Your task to perform on an android device: Add "usb-a" to the cart on ebay Image 0: 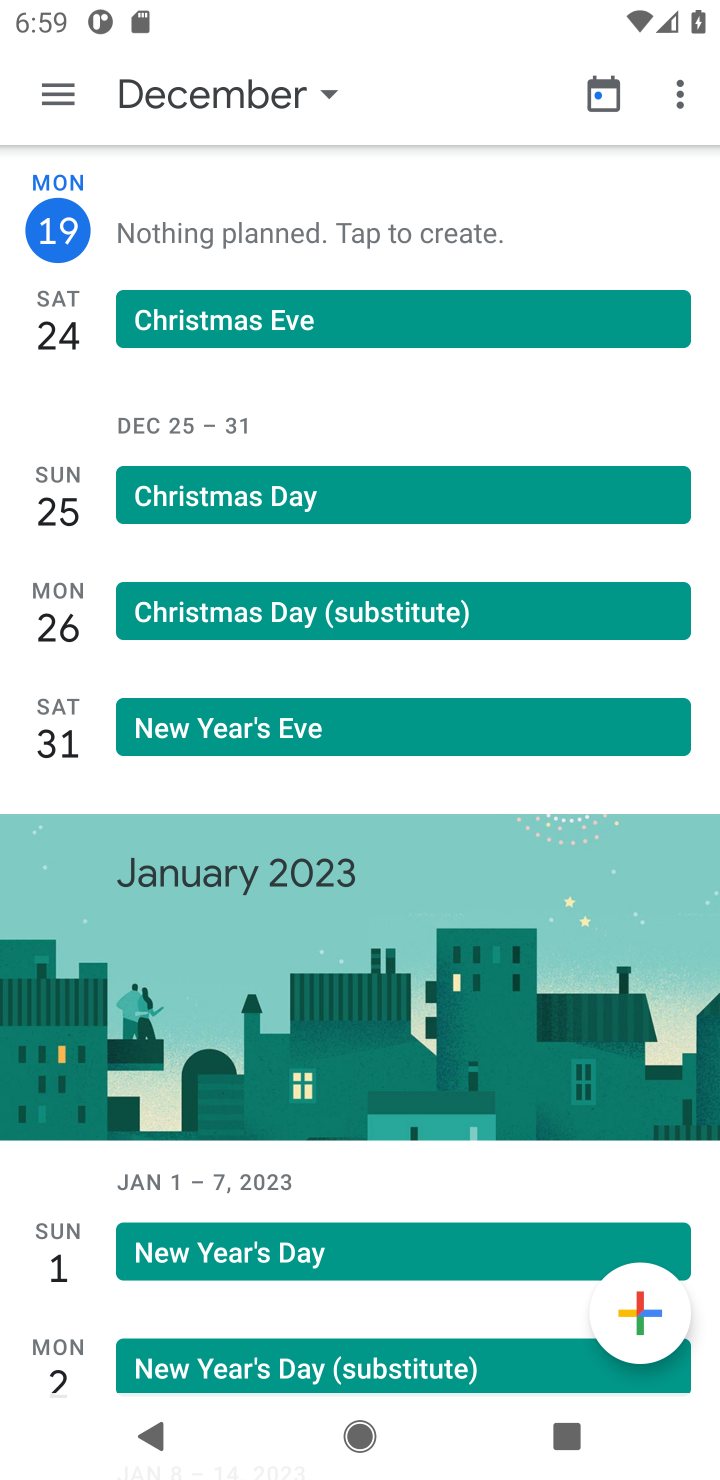
Step 0: press home button
Your task to perform on an android device: Add "usb-a" to the cart on ebay Image 1: 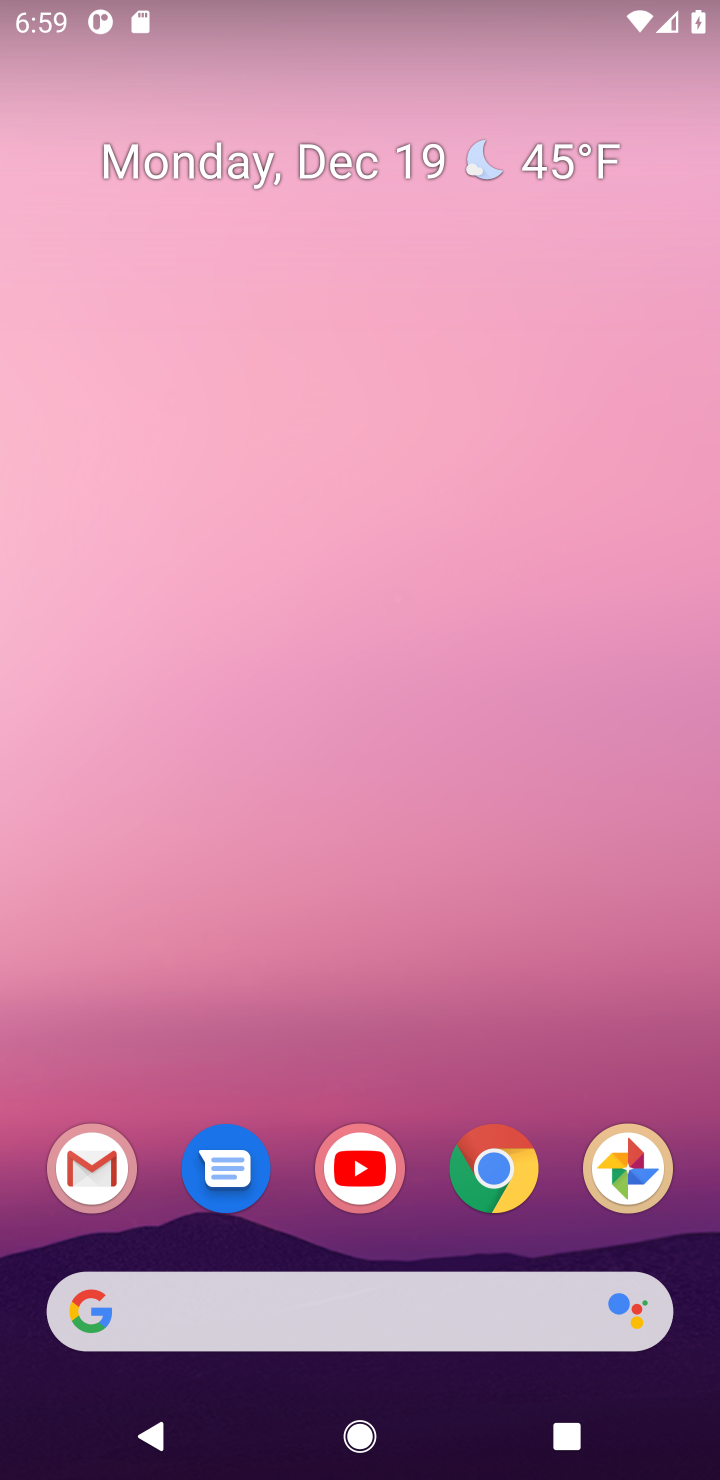
Step 1: click (470, 1194)
Your task to perform on an android device: Add "usb-a" to the cart on ebay Image 2: 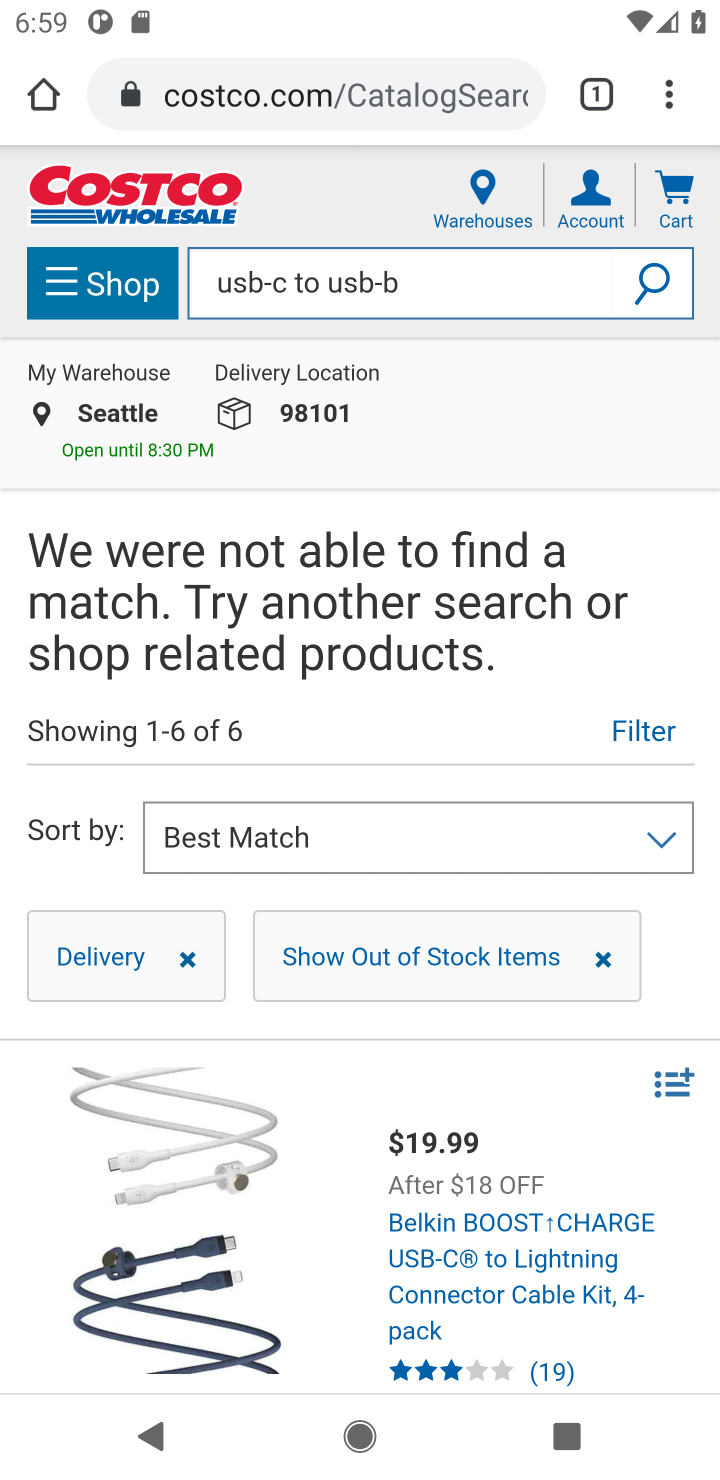
Step 2: click (249, 101)
Your task to perform on an android device: Add "usb-a" to the cart on ebay Image 3: 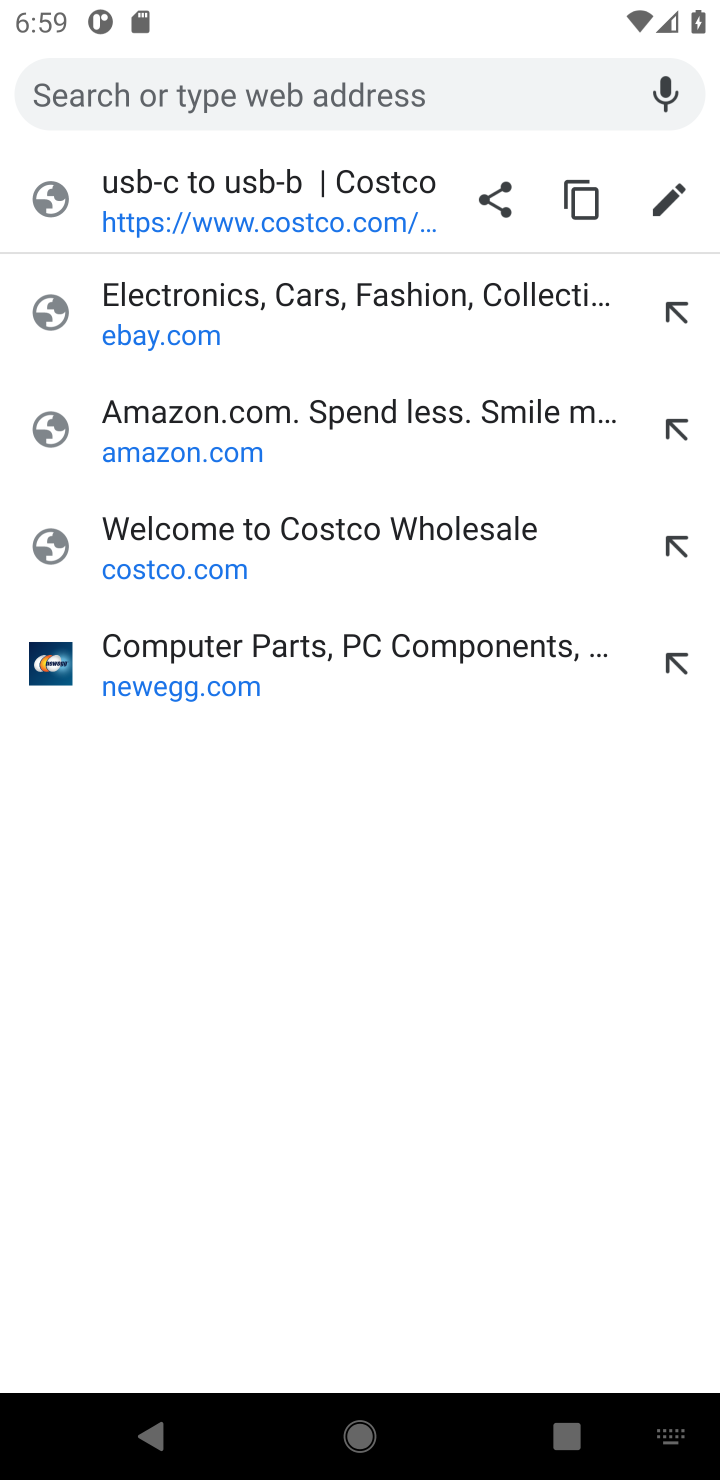
Step 3: click (177, 347)
Your task to perform on an android device: Add "usb-a" to the cart on ebay Image 4: 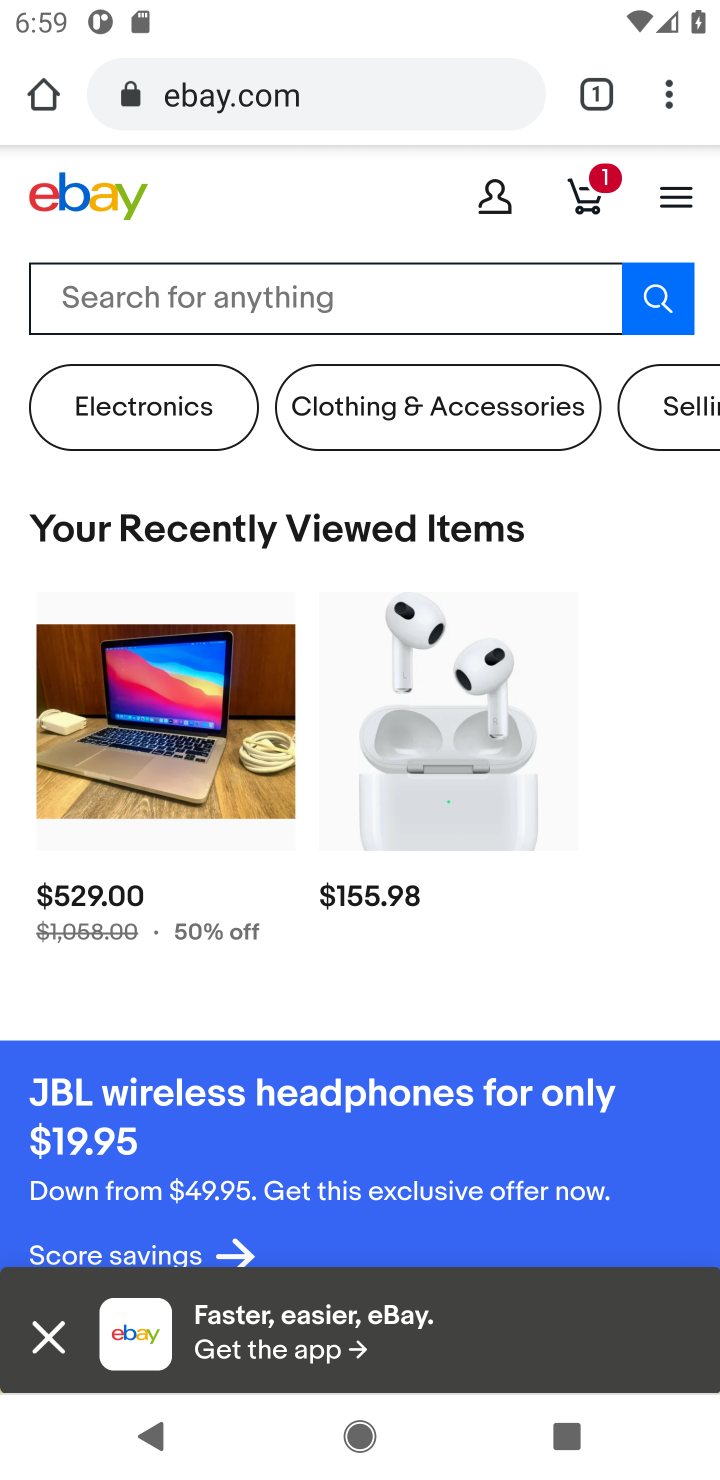
Step 4: click (173, 310)
Your task to perform on an android device: Add "usb-a" to the cart on ebay Image 5: 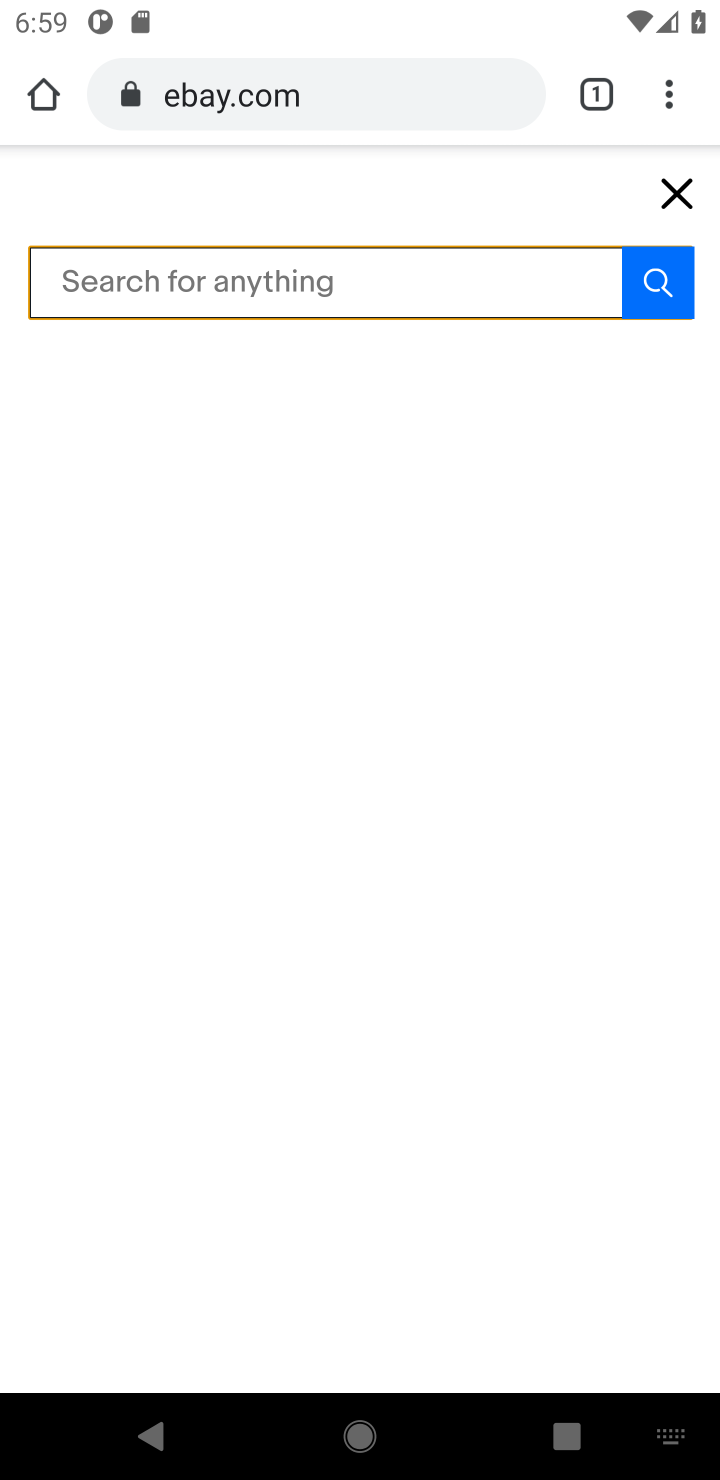
Step 5: type "usb-a"
Your task to perform on an android device: Add "usb-a" to the cart on ebay Image 6: 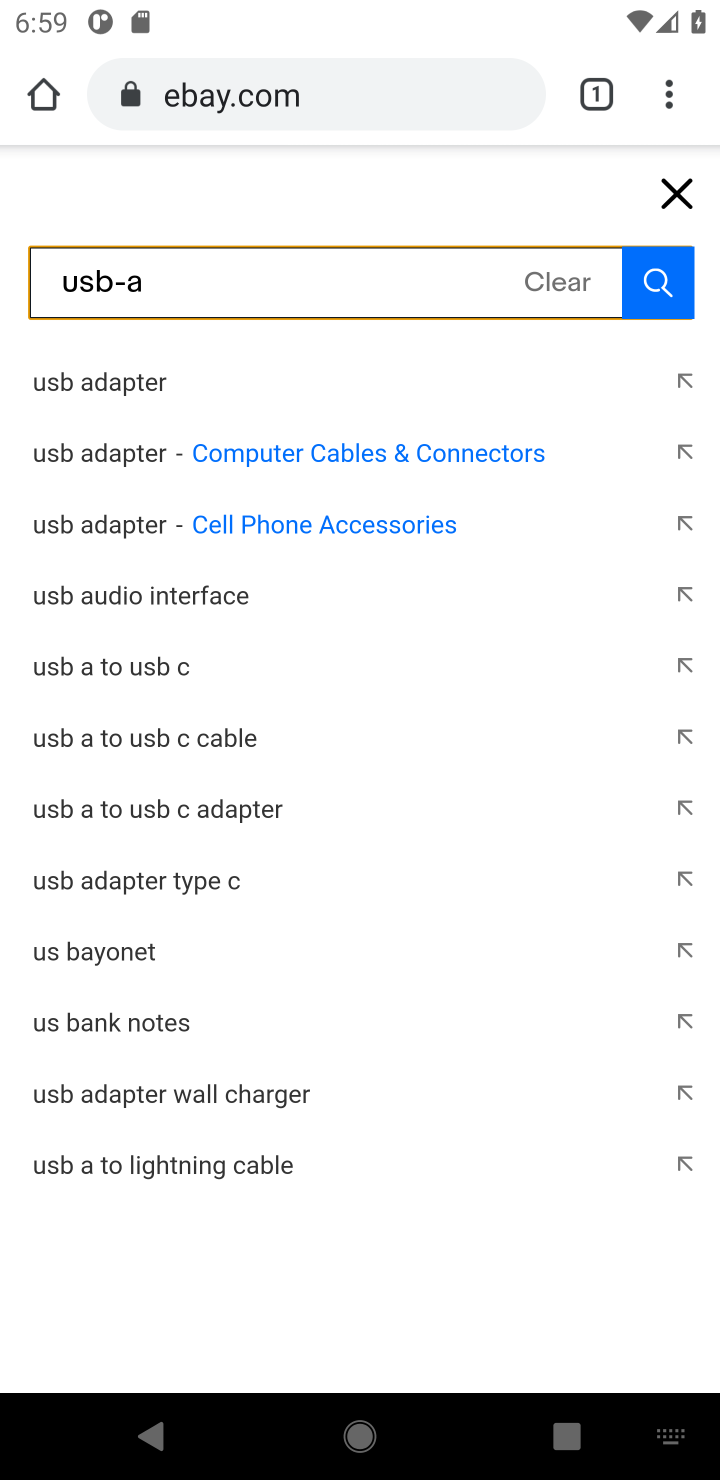
Step 6: click (668, 309)
Your task to perform on an android device: Add "usb-a" to the cart on ebay Image 7: 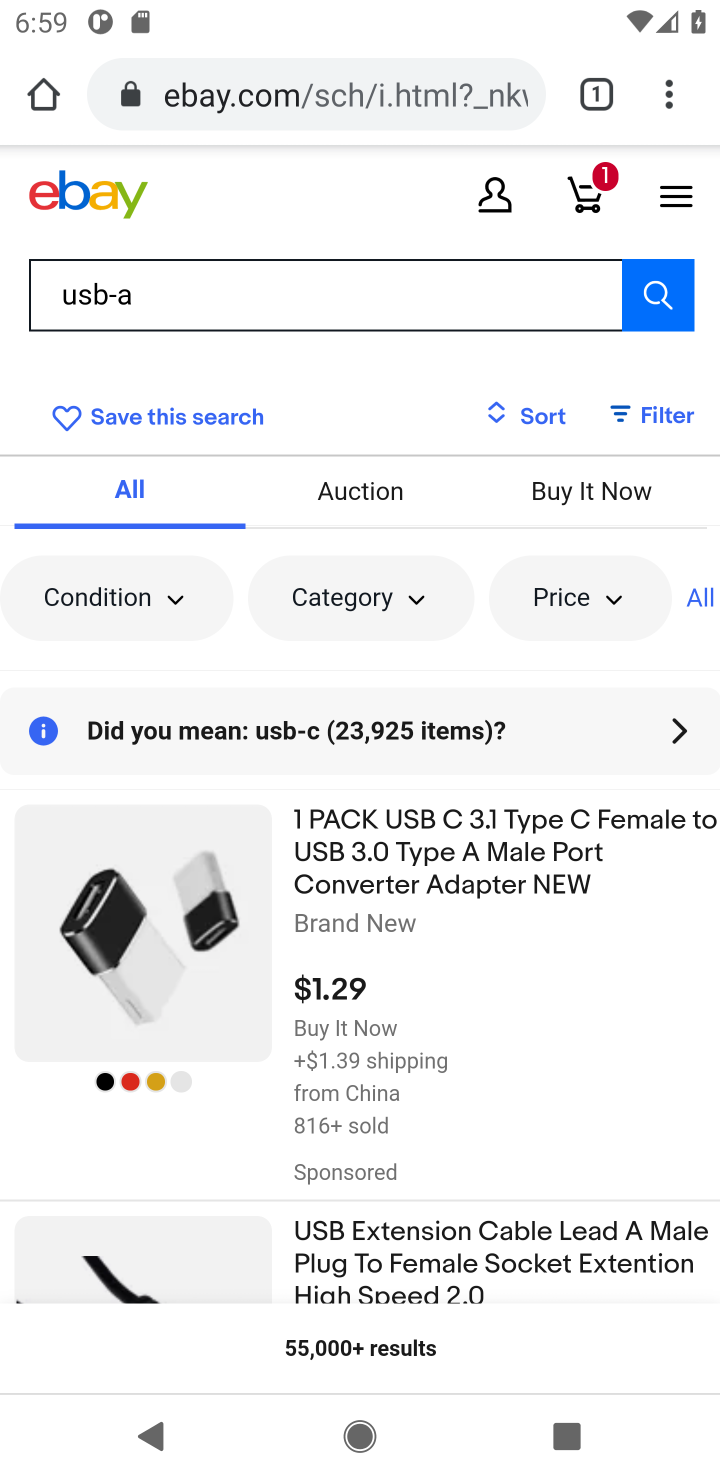
Step 7: drag from (396, 1124) to (416, 671)
Your task to perform on an android device: Add "usb-a" to the cart on ebay Image 8: 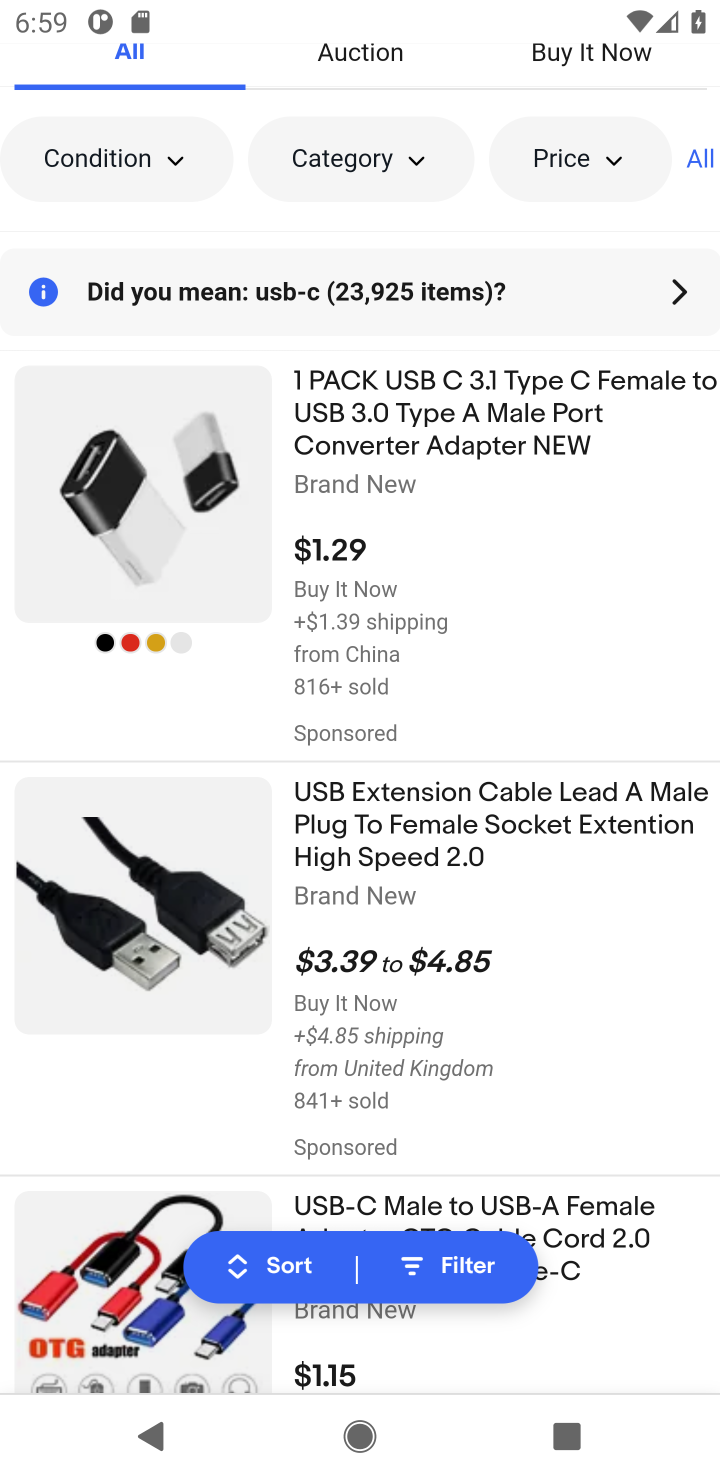
Step 8: drag from (397, 1054) to (403, 676)
Your task to perform on an android device: Add "usb-a" to the cart on ebay Image 9: 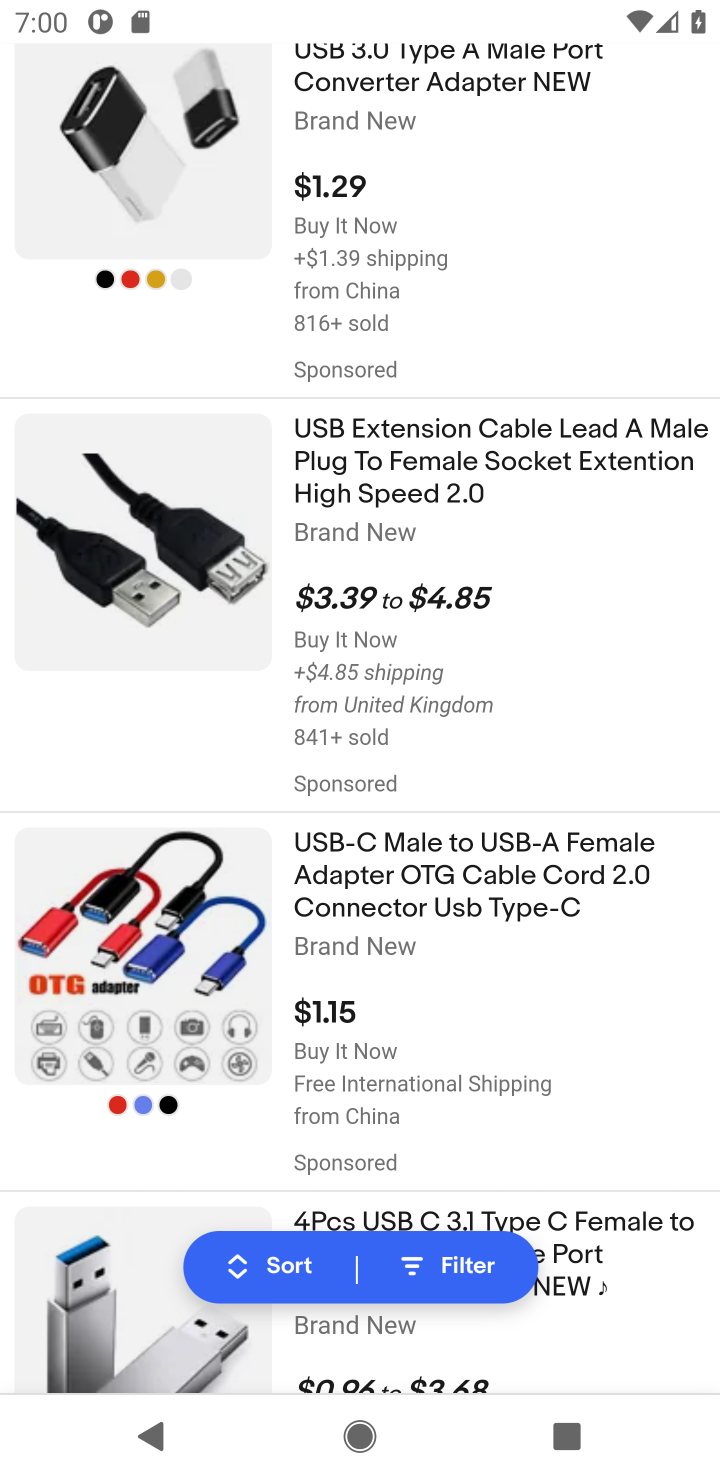
Step 9: click (373, 922)
Your task to perform on an android device: Add "usb-a" to the cart on ebay Image 10: 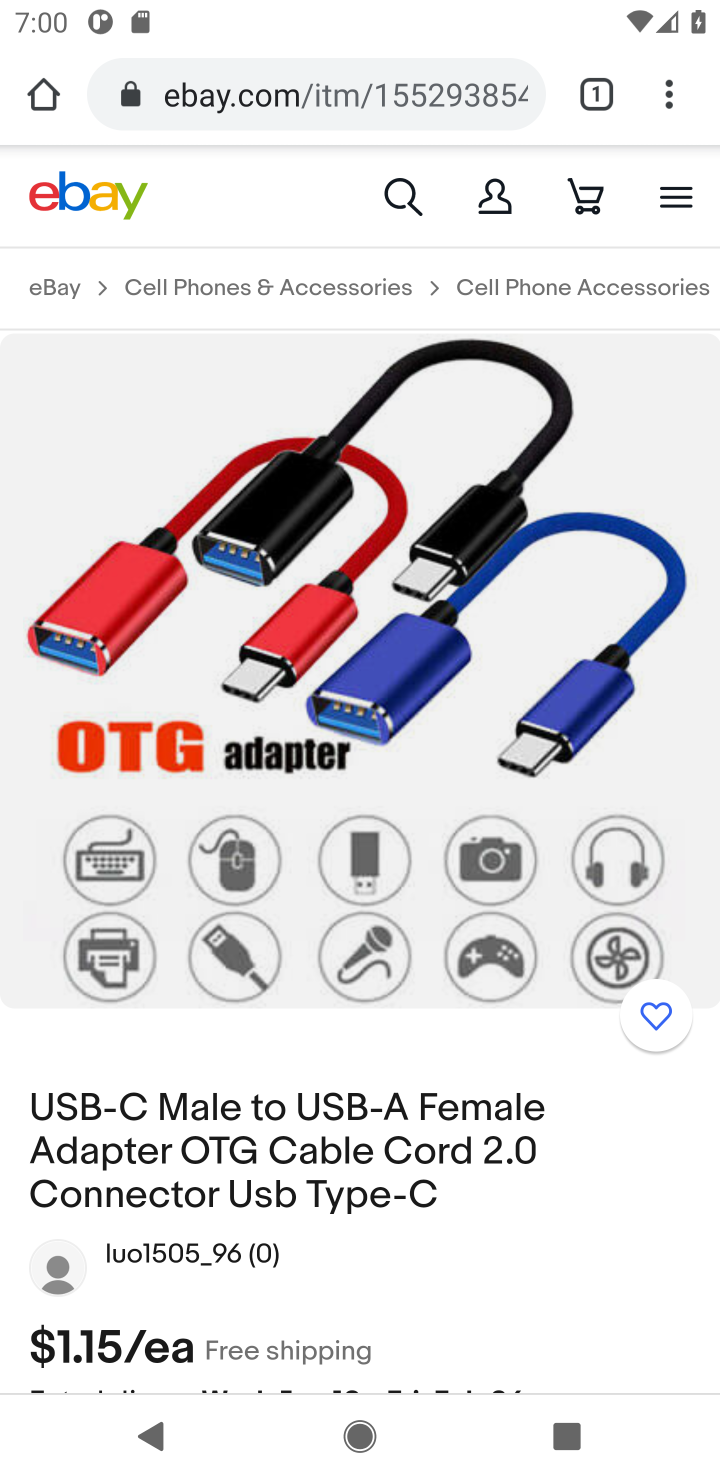
Step 10: drag from (304, 1151) to (353, 450)
Your task to perform on an android device: Add "usb-a" to the cart on ebay Image 11: 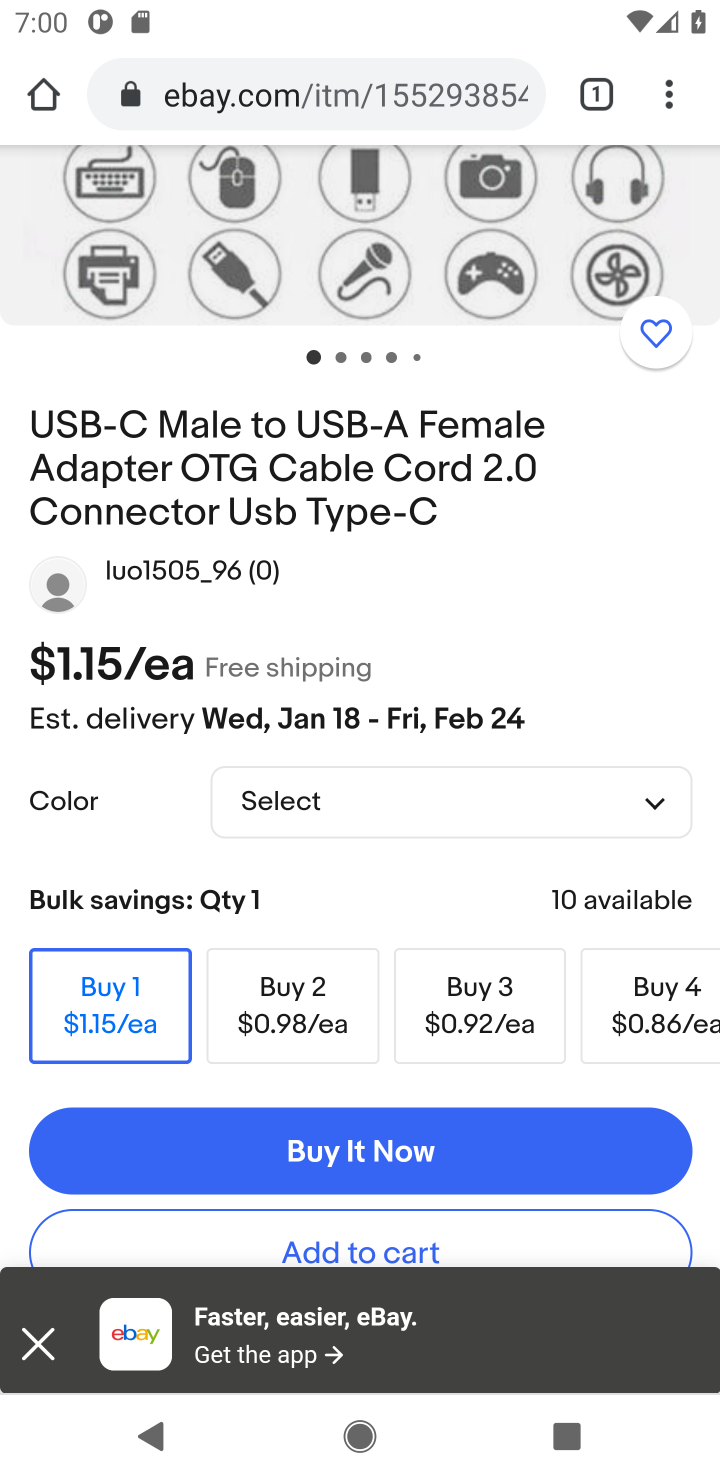
Step 11: click (323, 1249)
Your task to perform on an android device: Add "usb-a" to the cart on ebay Image 12: 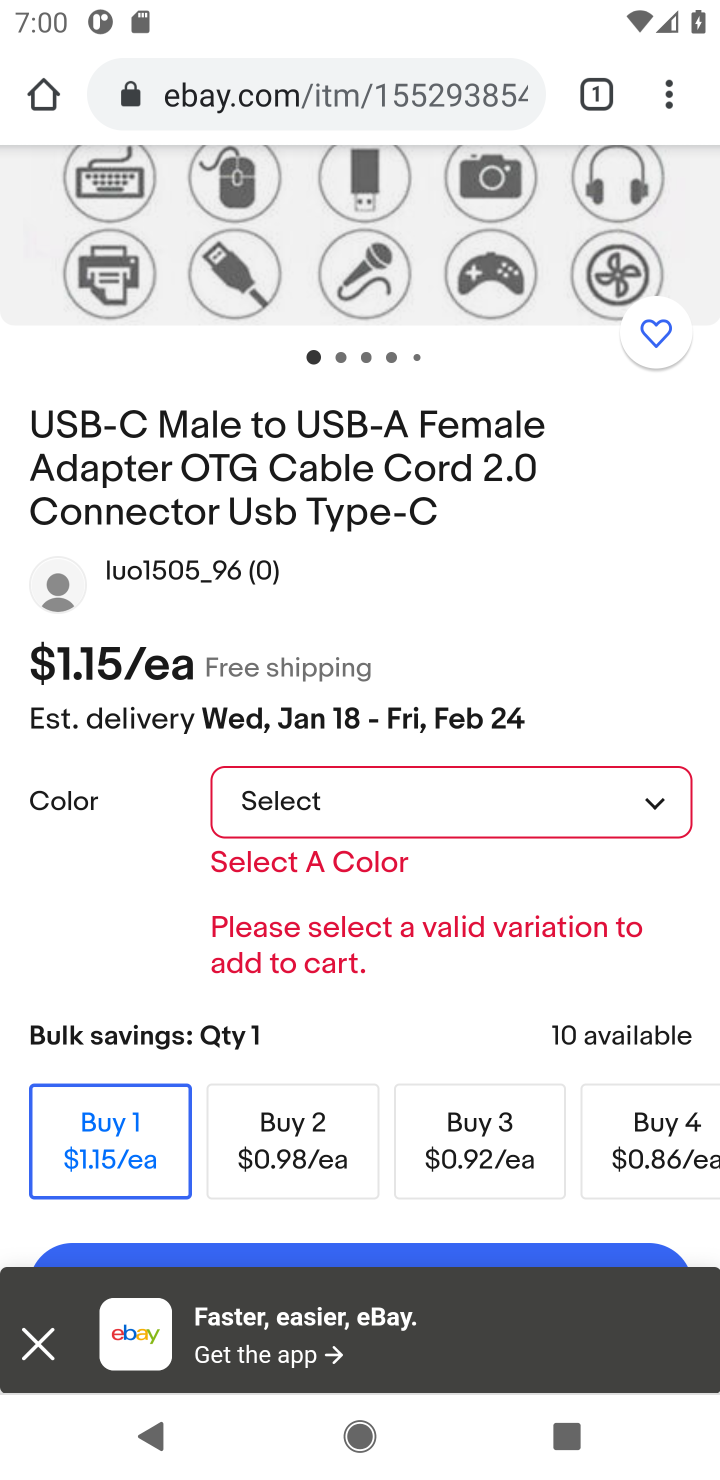
Step 12: click (649, 795)
Your task to perform on an android device: Add "usb-a" to the cart on ebay Image 13: 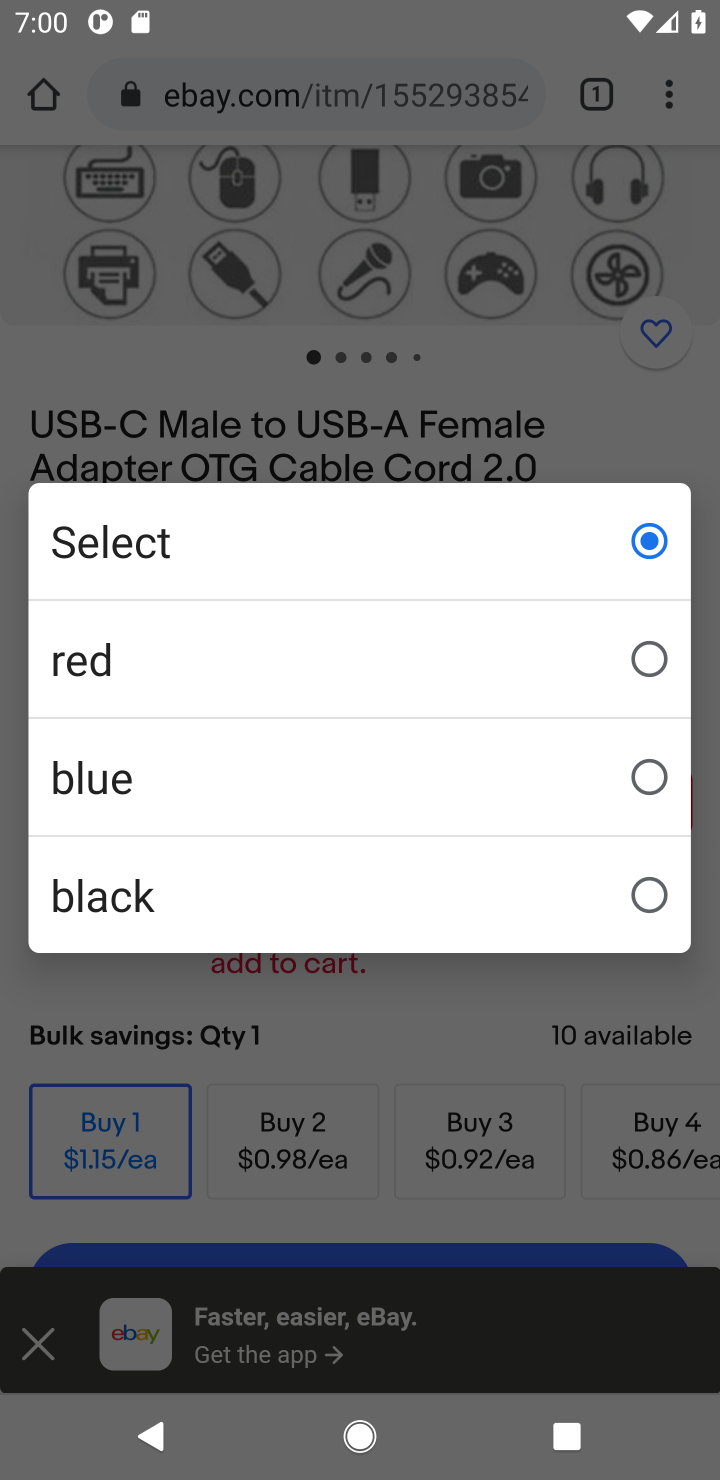
Step 13: click (86, 667)
Your task to perform on an android device: Add "usb-a" to the cart on ebay Image 14: 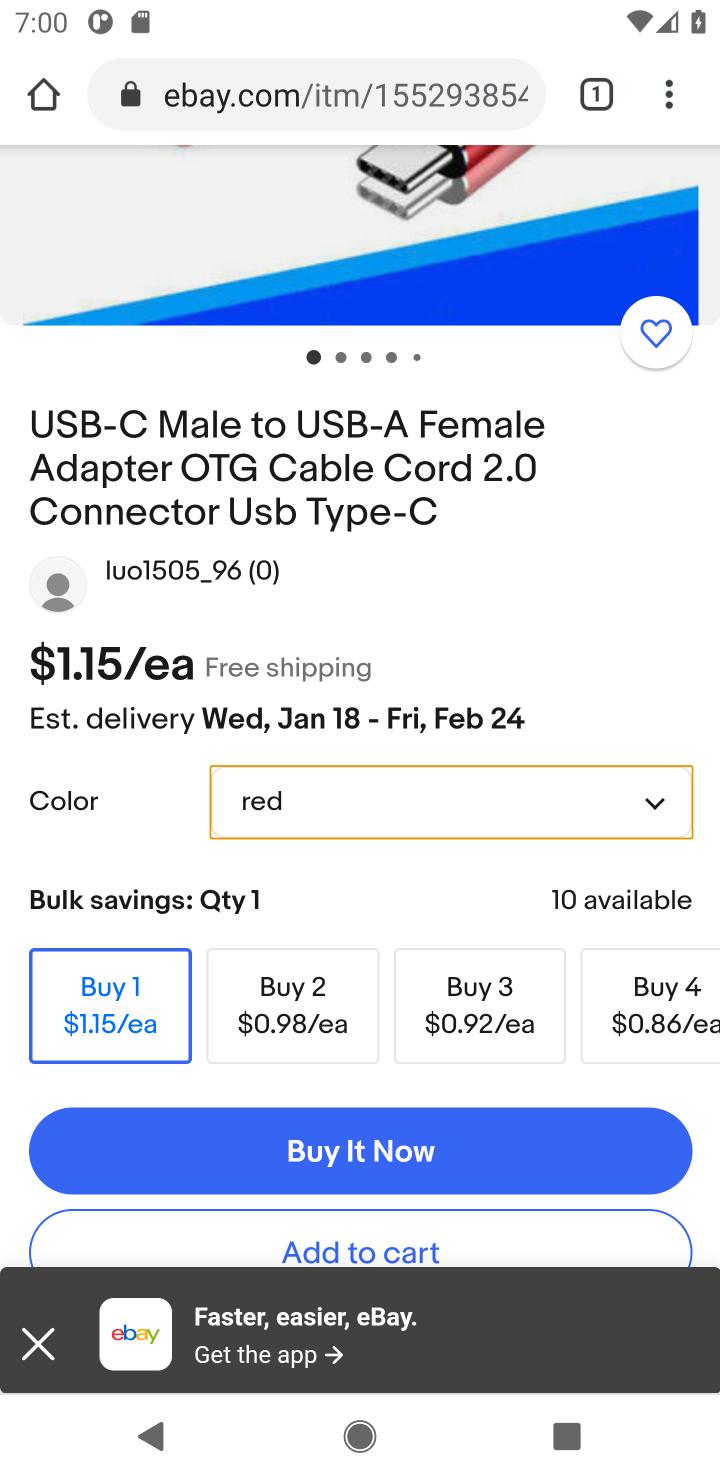
Step 14: click (380, 1231)
Your task to perform on an android device: Add "usb-a" to the cart on ebay Image 15: 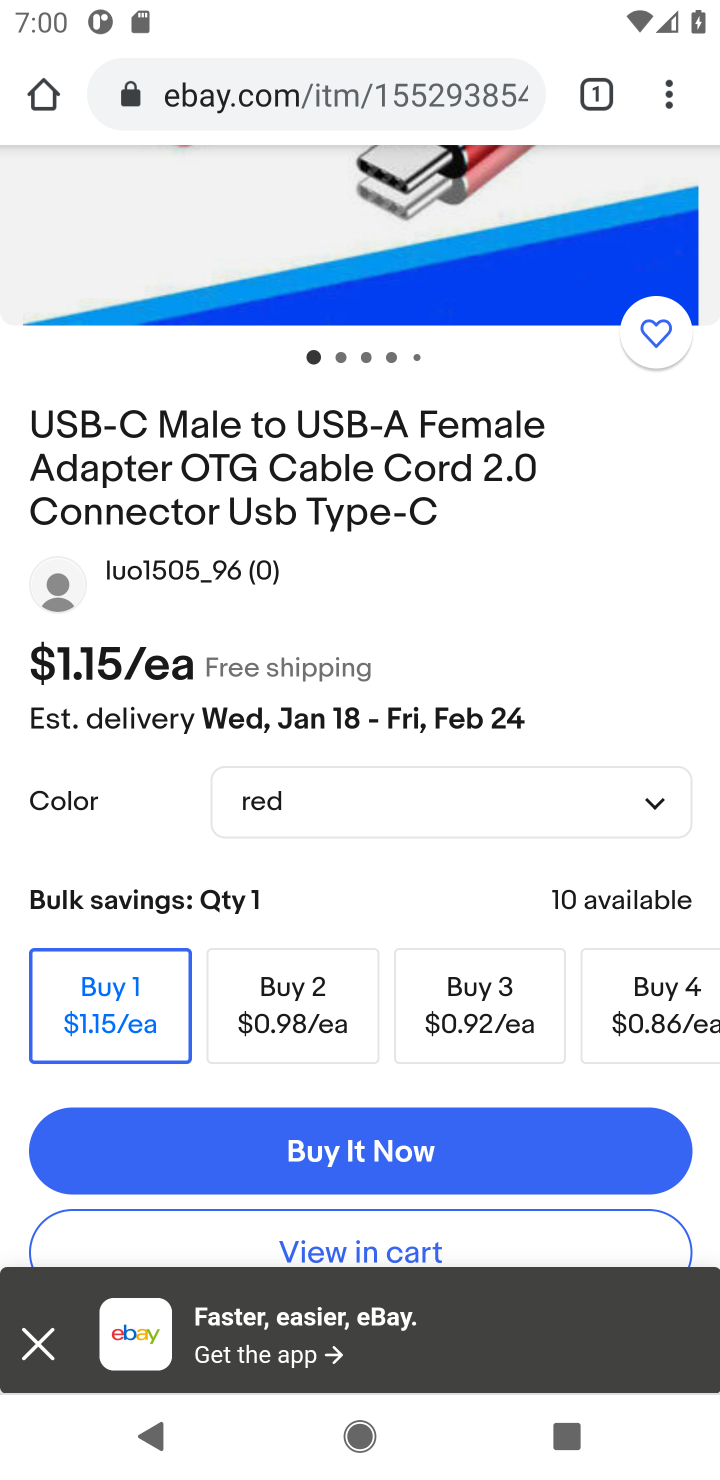
Step 15: task complete